Your task to perform on an android device: Open the phone app and click the voicemail tab. Image 0: 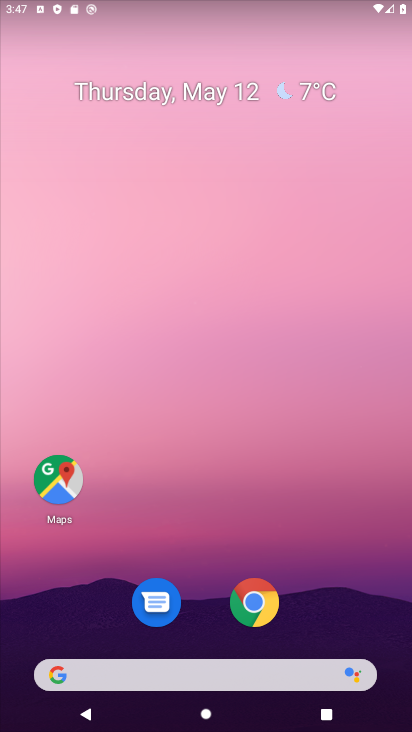
Step 0: click (131, 611)
Your task to perform on an android device: Open the phone app and click the voicemail tab. Image 1: 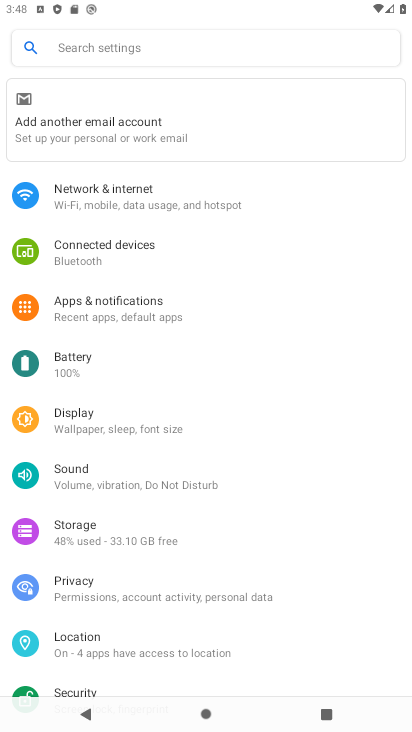
Step 1: press home button
Your task to perform on an android device: Open the phone app and click the voicemail tab. Image 2: 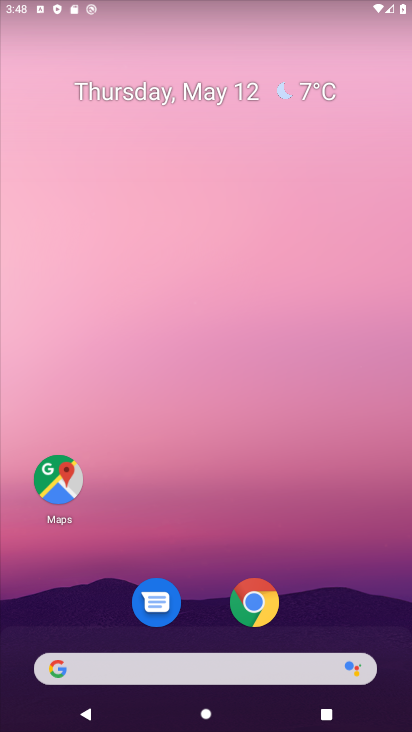
Step 2: drag from (210, 436) to (194, 43)
Your task to perform on an android device: Open the phone app and click the voicemail tab. Image 3: 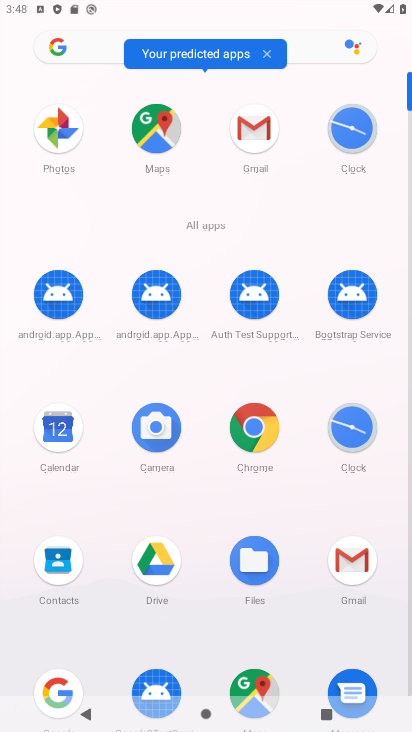
Step 3: drag from (224, 596) to (225, 242)
Your task to perform on an android device: Open the phone app and click the voicemail tab. Image 4: 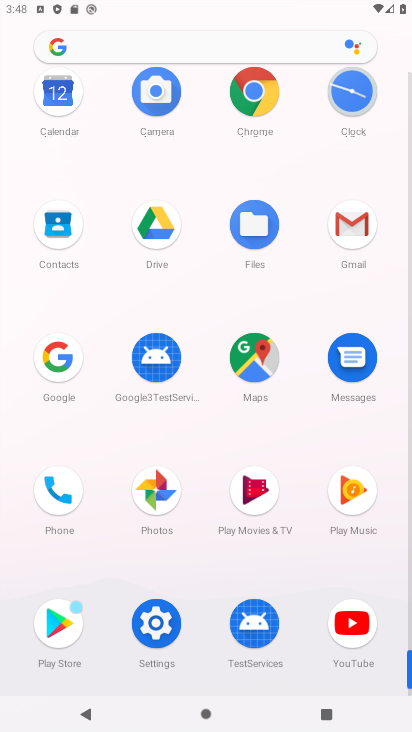
Step 4: click (55, 481)
Your task to perform on an android device: Open the phone app and click the voicemail tab. Image 5: 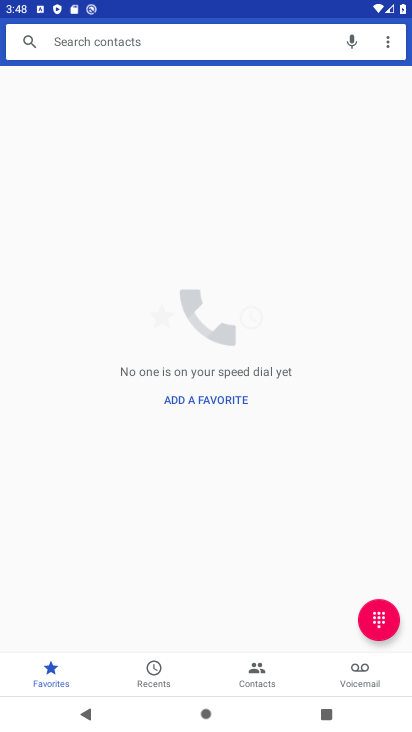
Step 5: click (360, 676)
Your task to perform on an android device: Open the phone app and click the voicemail tab. Image 6: 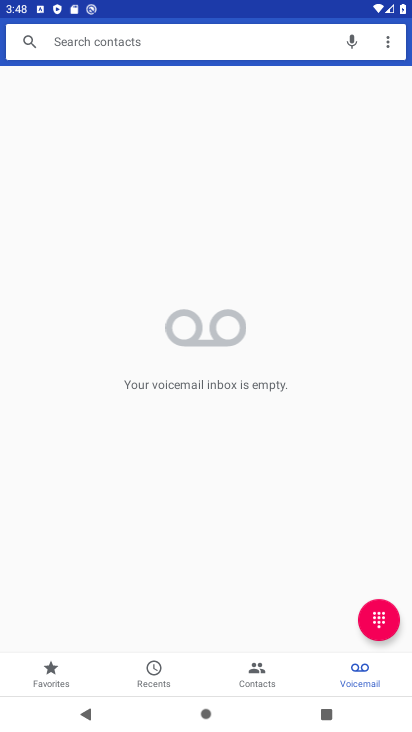
Step 6: task complete